Your task to perform on an android device: see sites visited before in the chrome app Image 0: 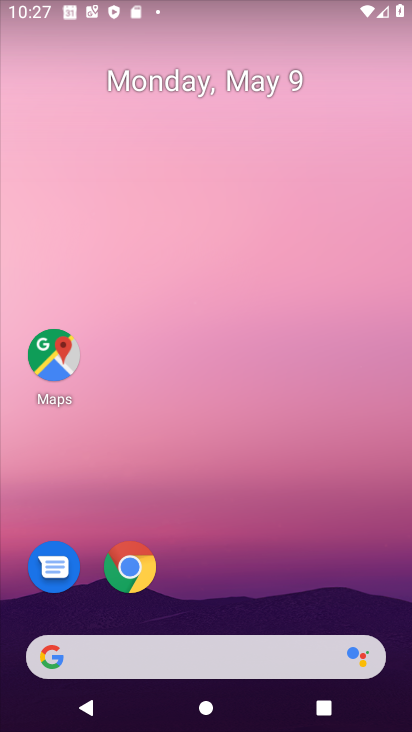
Step 0: click (133, 567)
Your task to perform on an android device: see sites visited before in the chrome app Image 1: 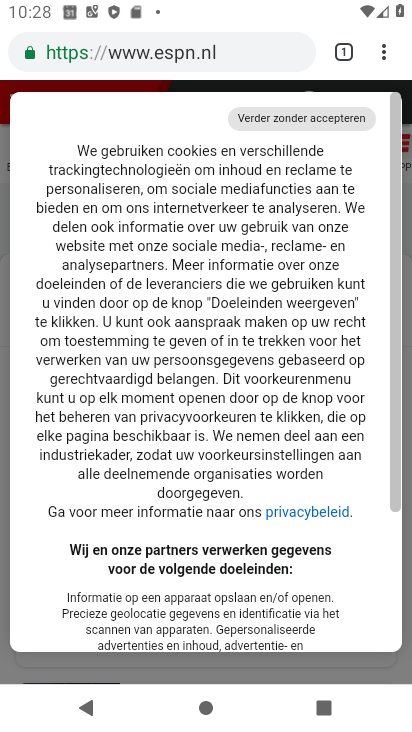
Step 1: click (386, 53)
Your task to perform on an android device: see sites visited before in the chrome app Image 2: 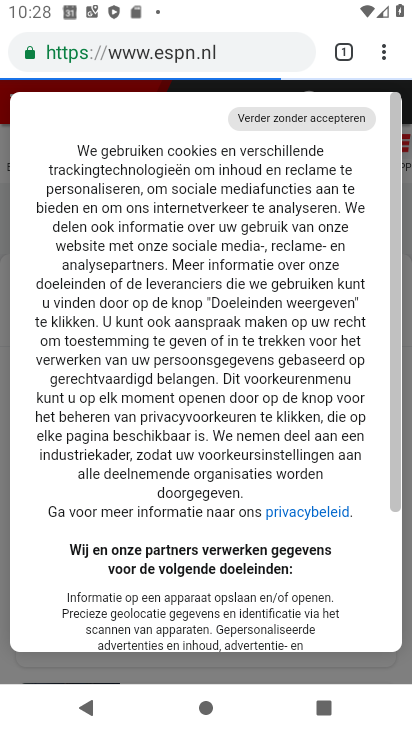
Step 2: task complete